Your task to perform on an android device: turn on sleep mode Image 0: 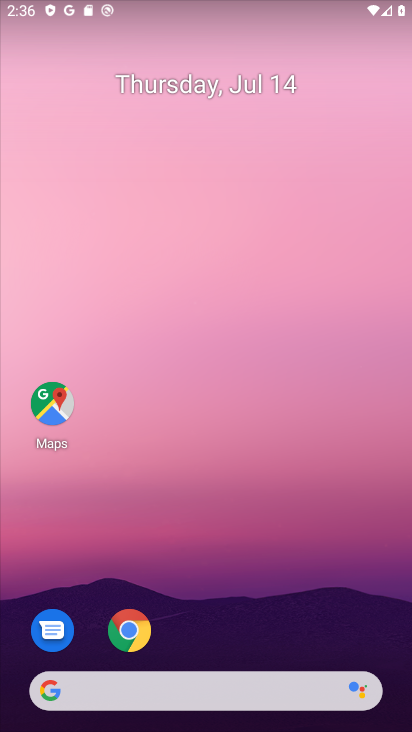
Step 0: drag from (235, 603) to (37, 53)
Your task to perform on an android device: turn on sleep mode Image 1: 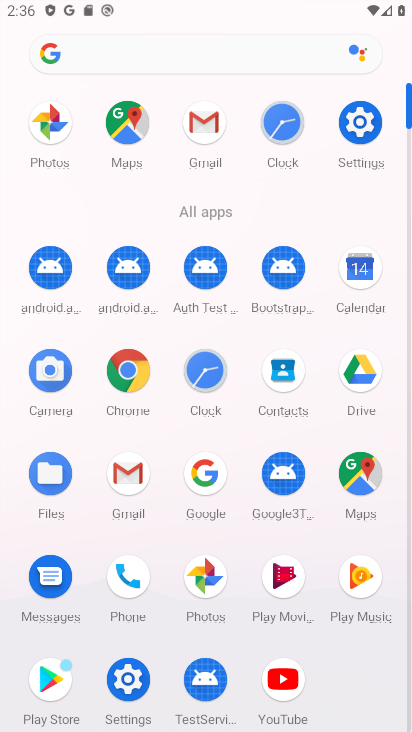
Step 1: click (351, 124)
Your task to perform on an android device: turn on sleep mode Image 2: 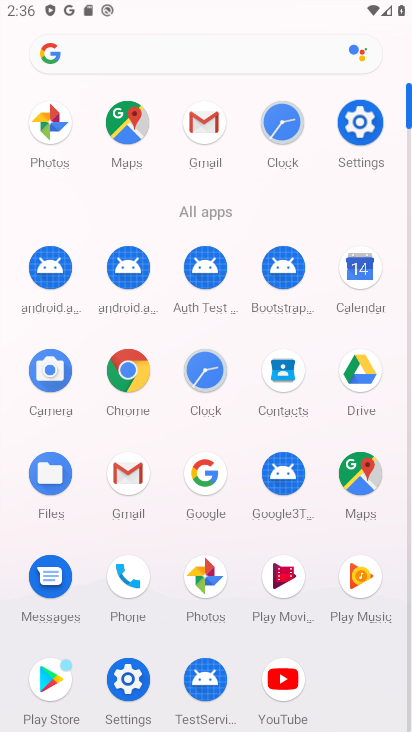
Step 2: click (351, 124)
Your task to perform on an android device: turn on sleep mode Image 3: 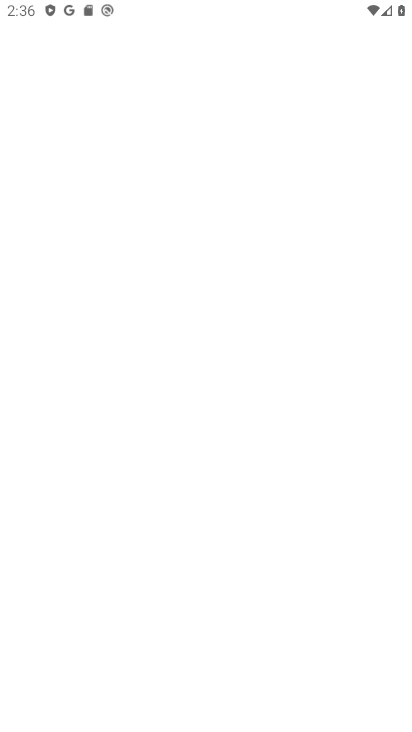
Step 3: click (351, 124)
Your task to perform on an android device: turn on sleep mode Image 4: 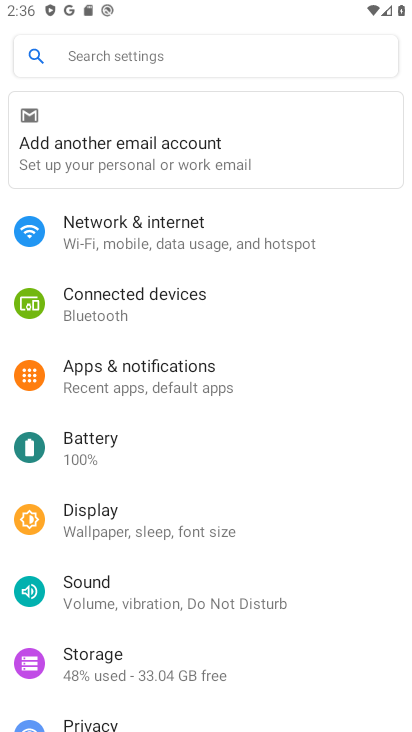
Step 4: drag from (192, 539) to (186, 366)
Your task to perform on an android device: turn on sleep mode Image 5: 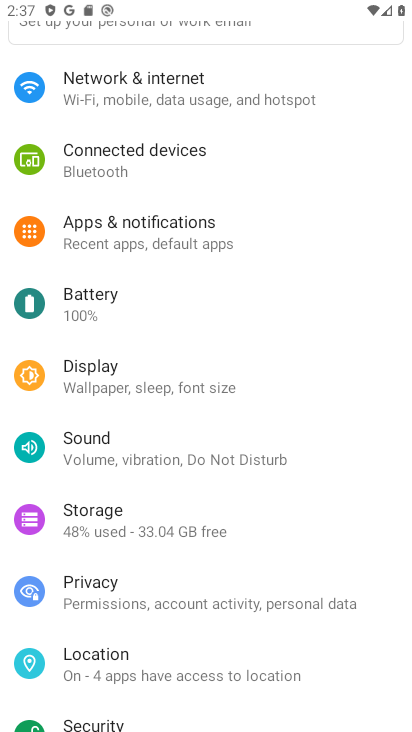
Step 5: click (79, 356)
Your task to perform on an android device: turn on sleep mode Image 6: 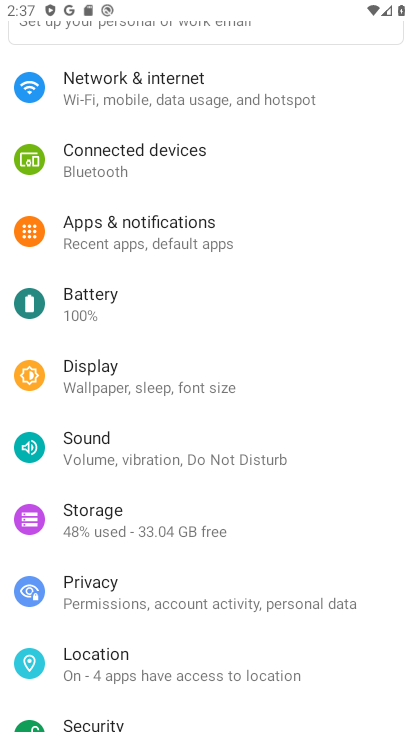
Step 6: click (83, 369)
Your task to perform on an android device: turn on sleep mode Image 7: 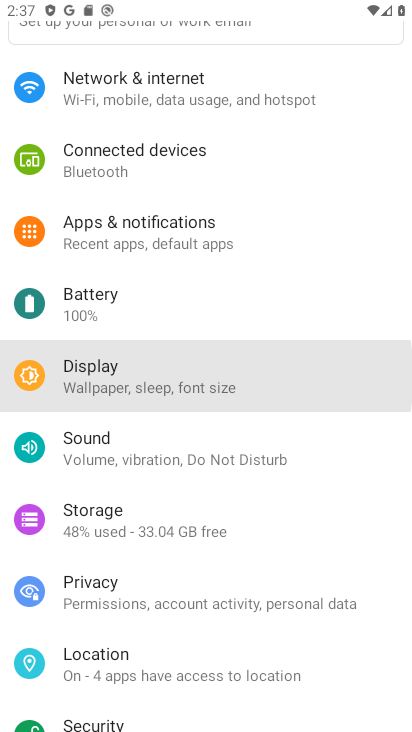
Step 7: click (90, 373)
Your task to perform on an android device: turn on sleep mode Image 8: 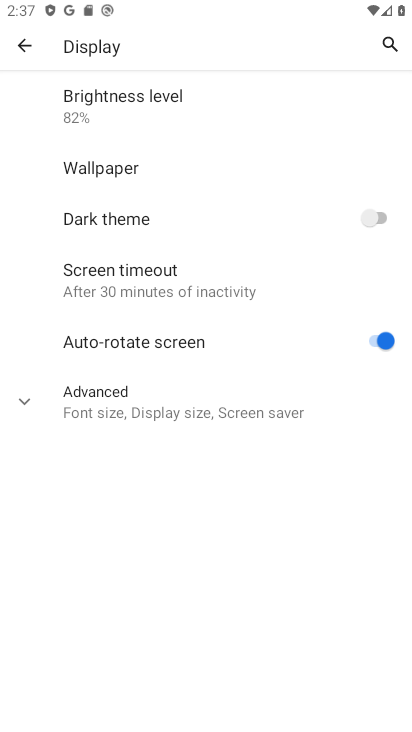
Step 8: click (105, 288)
Your task to perform on an android device: turn on sleep mode Image 9: 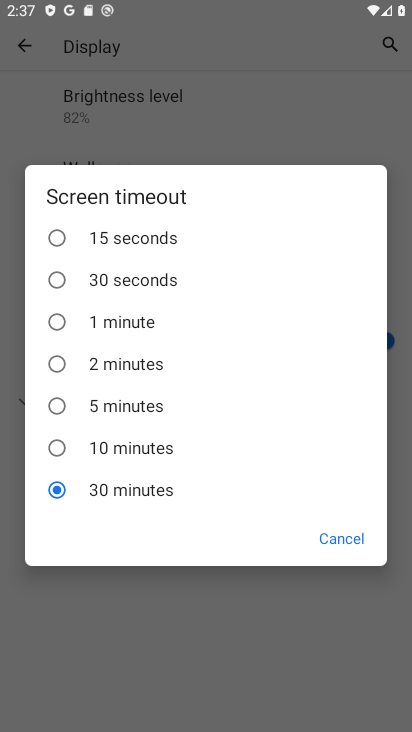
Step 9: task complete